Your task to perform on an android device: Is it going to rain today? Image 0: 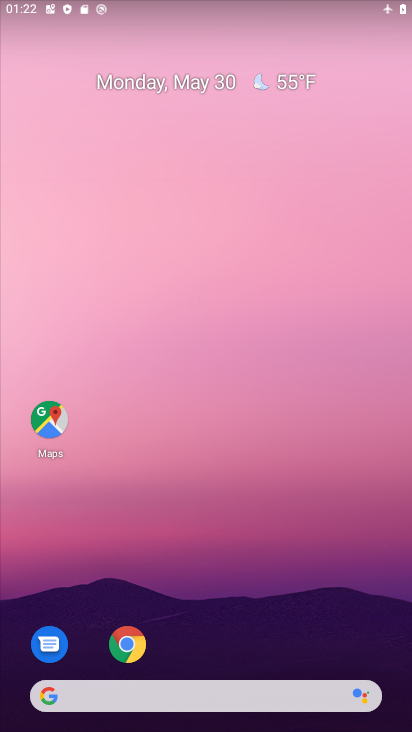
Step 0: click (272, 114)
Your task to perform on an android device: Is it going to rain today? Image 1: 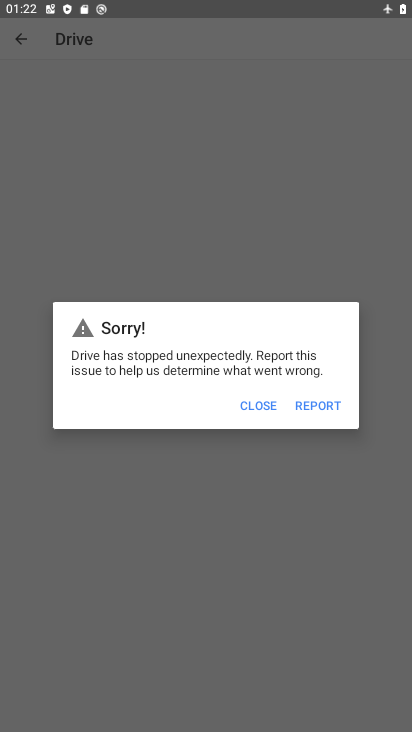
Step 1: press home button
Your task to perform on an android device: Is it going to rain today? Image 2: 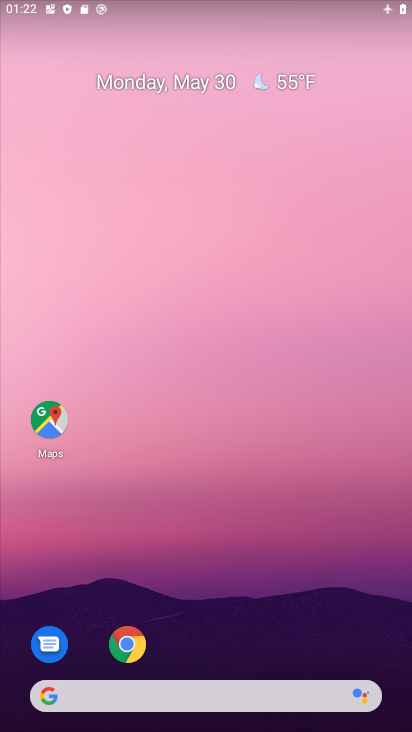
Step 2: drag from (356, 625) to (311, 161)
Your task to perform on an android device: Is it going to rain today? Image 3: 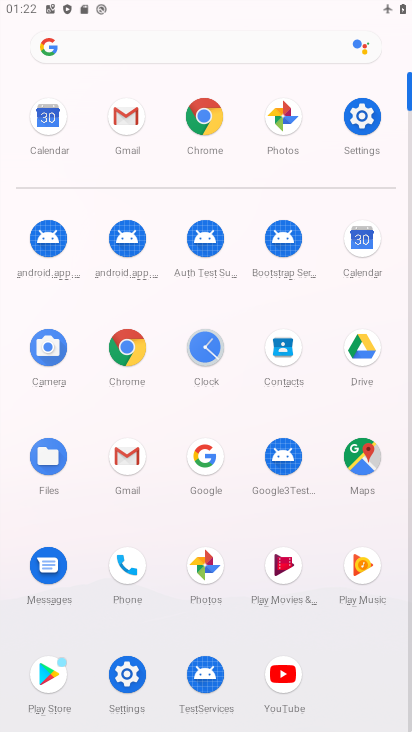
Step 3: click (130, 347)
Your task to perform on an android device: Is it going to rain today? Image 4: 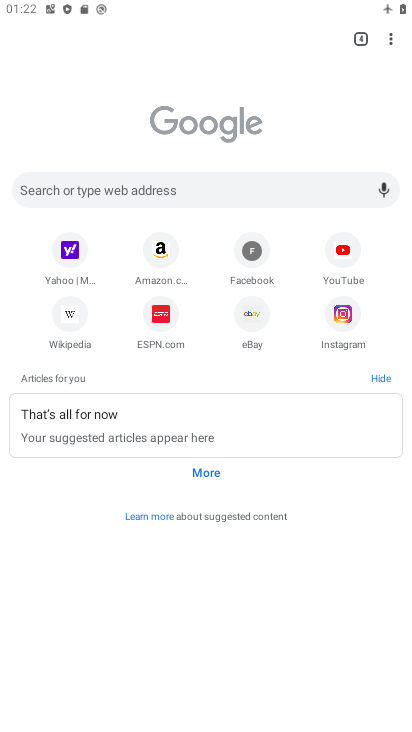
Step 4: click (138, 197)
Your task to perform on an android device: Is it going to rain today? Image 5: 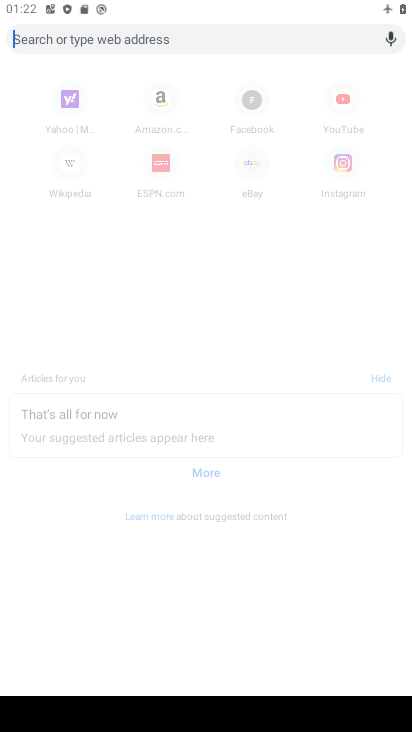
Step 5: type "is it going to rain today"
Your task to perform on an android device: Is it going to rain today? Image 6: 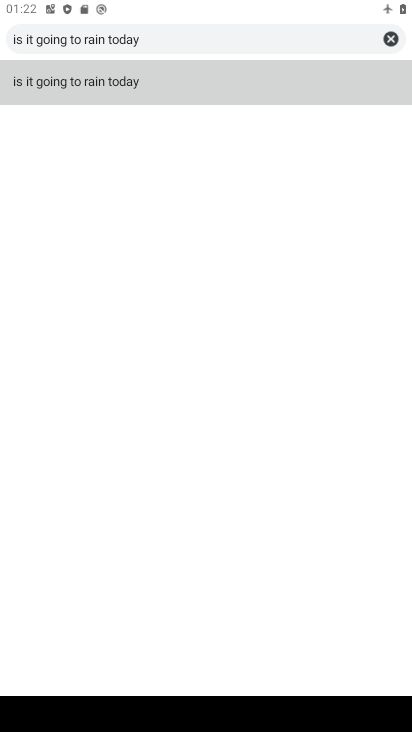
Step 6: click (88, 83)
Your task to perform on an android device: Is it going to rain today? Image 7: 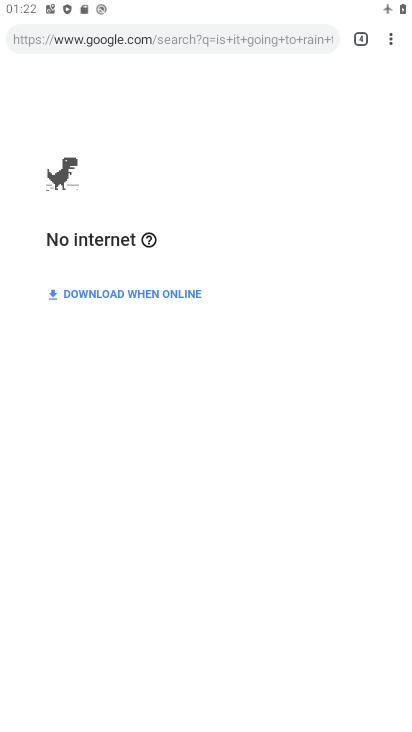
Step 7: task complete